Your task to perform on an android device: turn on location history Image 0: 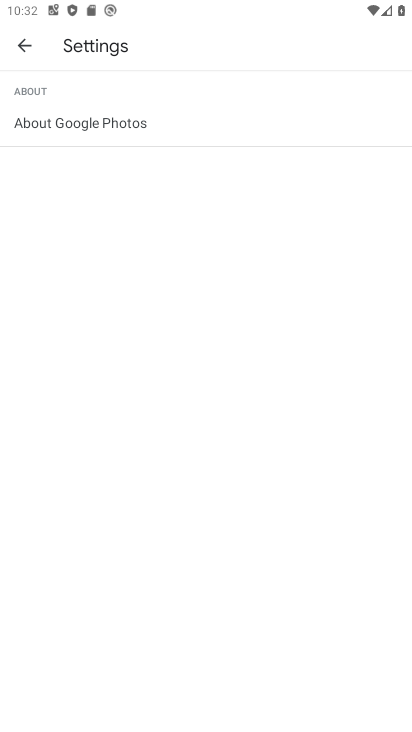
Step 0: press back button
Your task to perform on an android device: turn on location history Image 1: 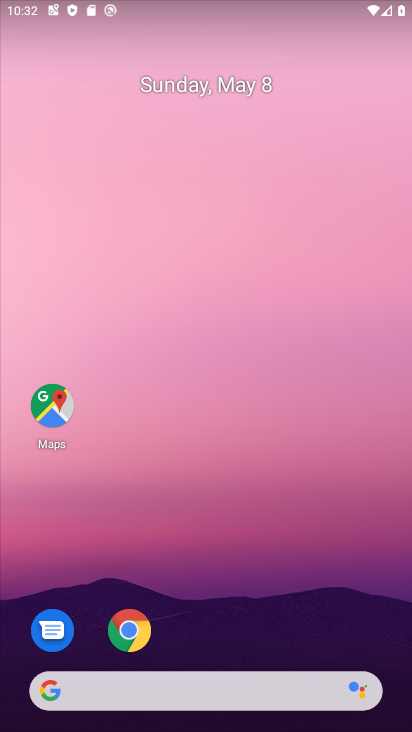
Step 1: drag from (233, 663) to (303, 226)
Your task to perform on an android device: turn on location history Image 2: 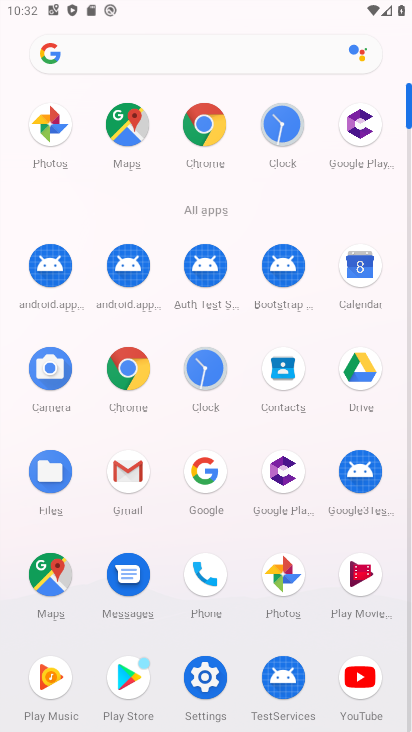
Step 2: click (218, 680)
Your task to perform on an android device: turn on location history Image 3: 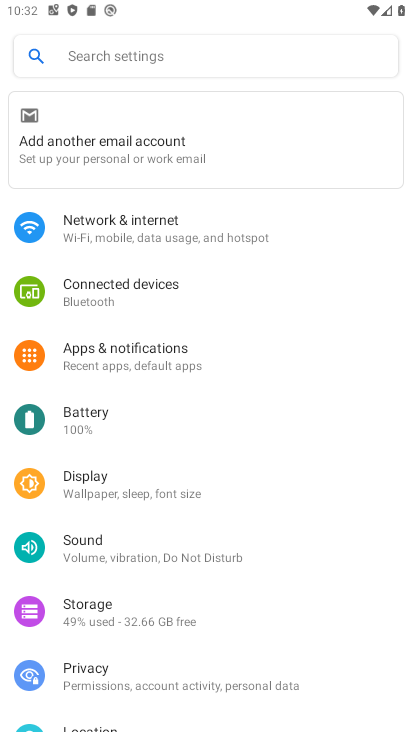
Step 3: drag from (218, 680) to (257, 514)
Your task to perform on an android device: turn on location history Image 4: 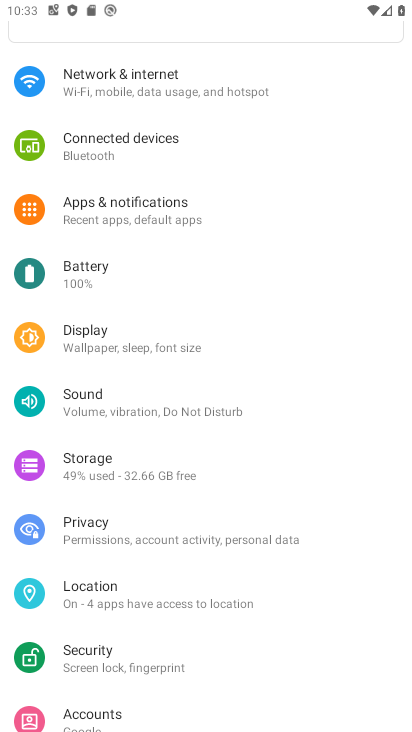
Step 4: click (190, 596)
Your task to perform on an android device: turn on location history Image 5: 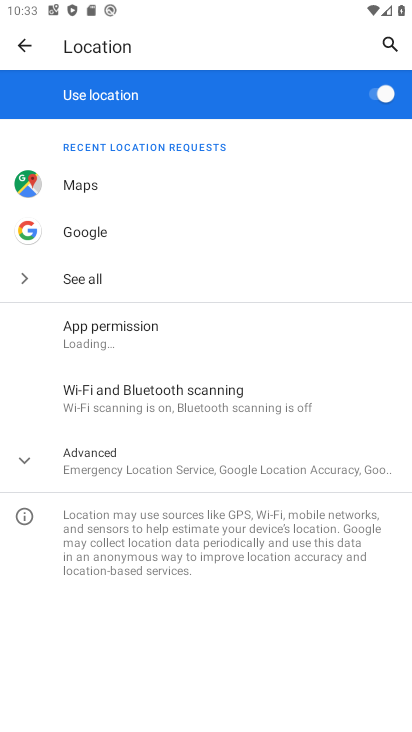
Step 5: click (254, 458)
Your task to perform on an android device: turn on location history Image 6: 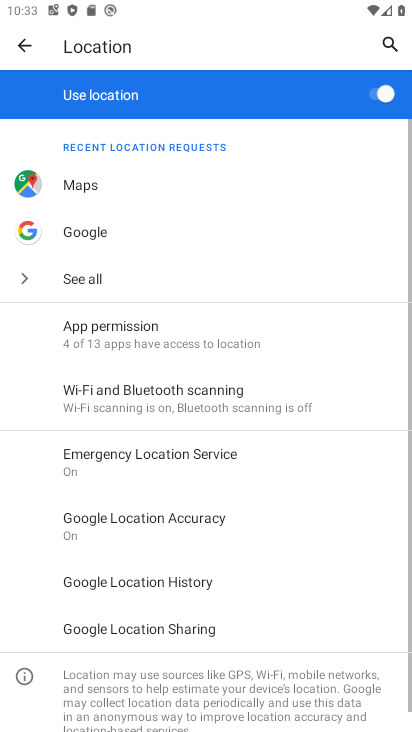
Step 6: click (225, 583)
Your task to perform on an android device: turn on location history Image 7: 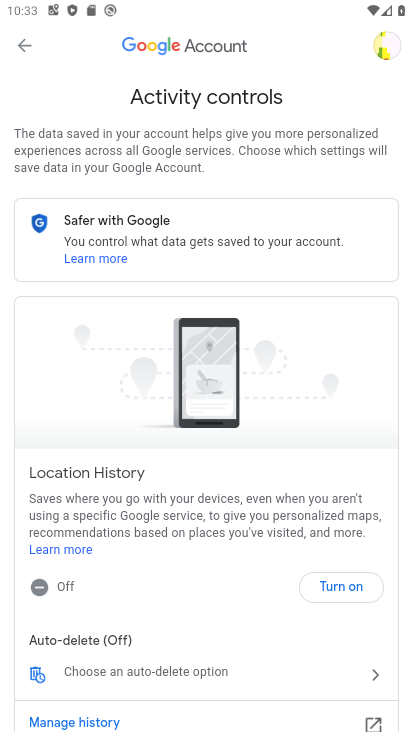
Step 7: click (353, 591)
Your task to perform on an android device: turn on location history Image 8: 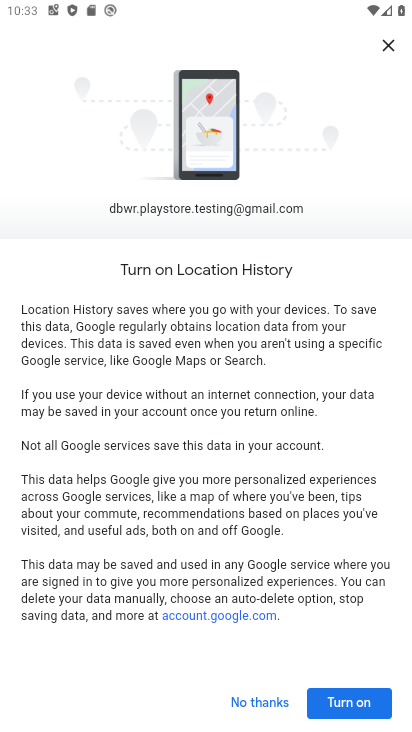
Step 8: click (361, 704)
Your task to perform on an android device: turn on location history Image 9: 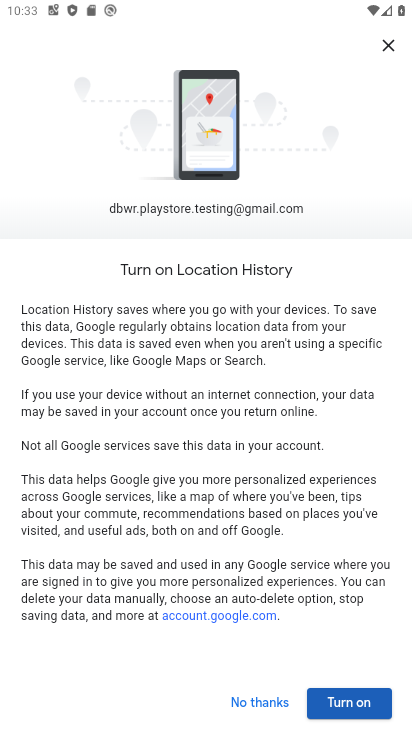
Step 9: click (384, 696)
Your task to perform on an android device: turn on location history Image 10: 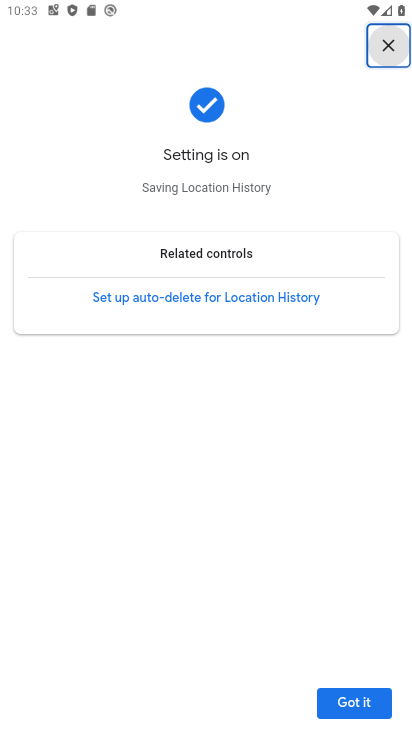
Step 10: click (365, 704)
Your task to perform on an android device: turn on location history Image 11: 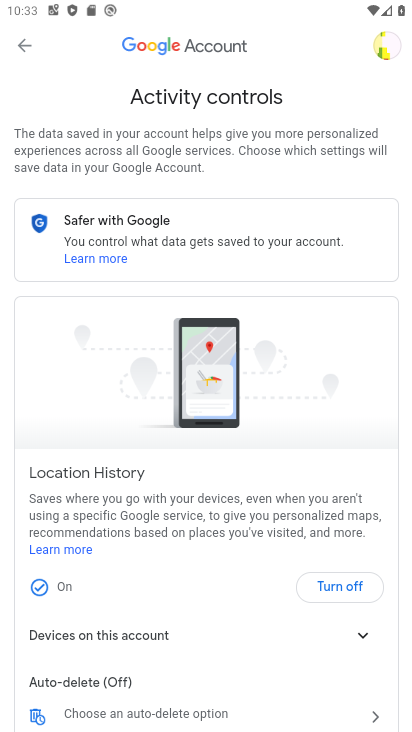
Step 11: task complete